Your task to perform on an android device: change timer sound Image 0: 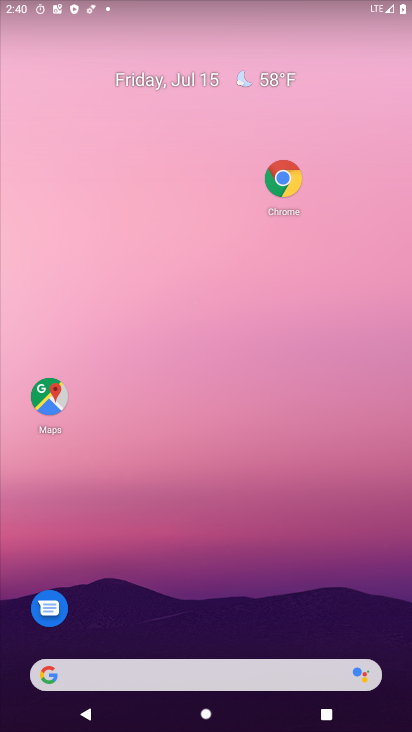
Step 0: drag from (213, 581) to (225, 17)
Your task to perform on an android device: change timer sound Image 1: 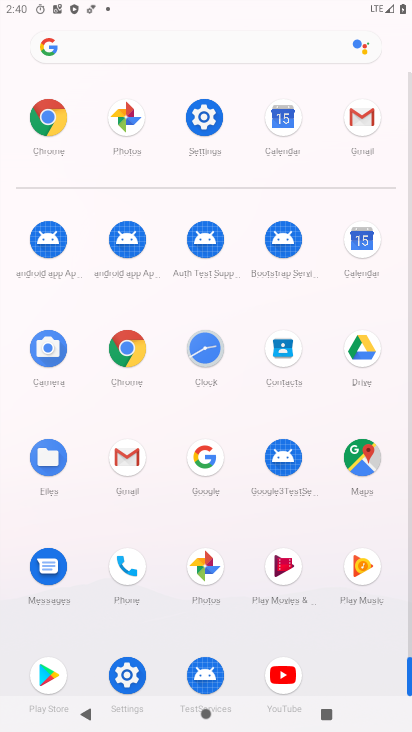
Step 1: click (121, 666)
Your task to perform on an android device: change timer sound Image 2: 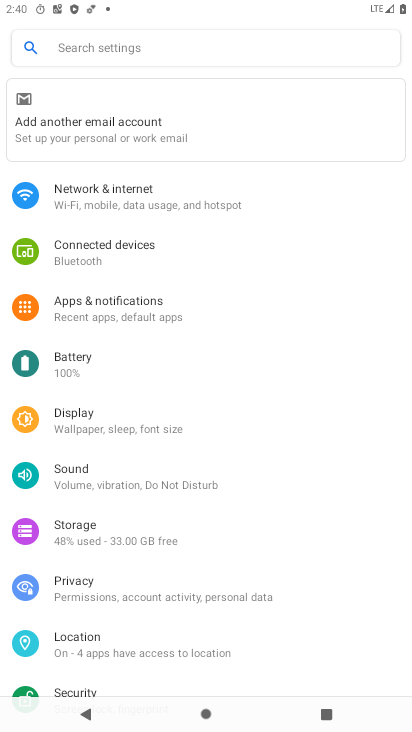
Step 2: drag from (113, 608) to (119, 429)
Your task to perform on an android device: change timer sound Image 3: 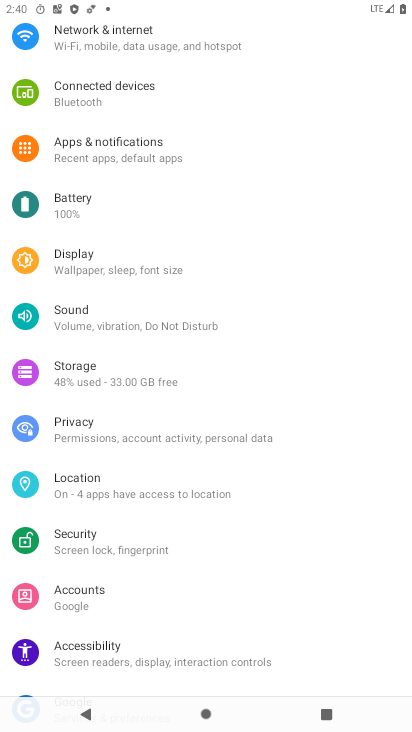
Step 3: press home button
Your task to perform on an android device: change timer sound Image 4: 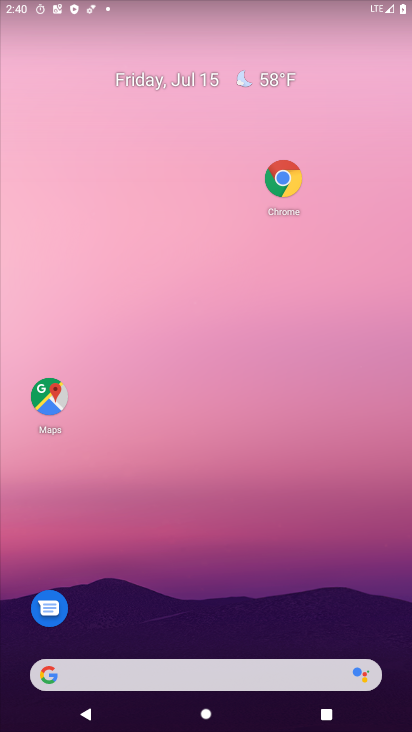
Step 4: drag from (214, 552) to (219, 55)
Your task to perform on an android device: change timer sound Image 5: 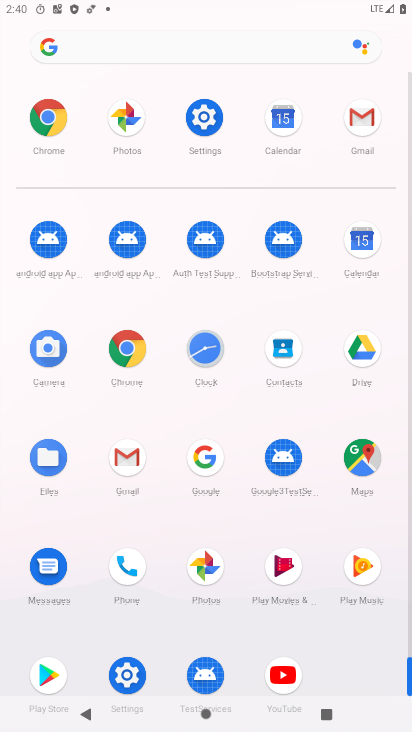
Step 5: click (208, 359)
Your task to perform on an android device: change timer sound Image 6: 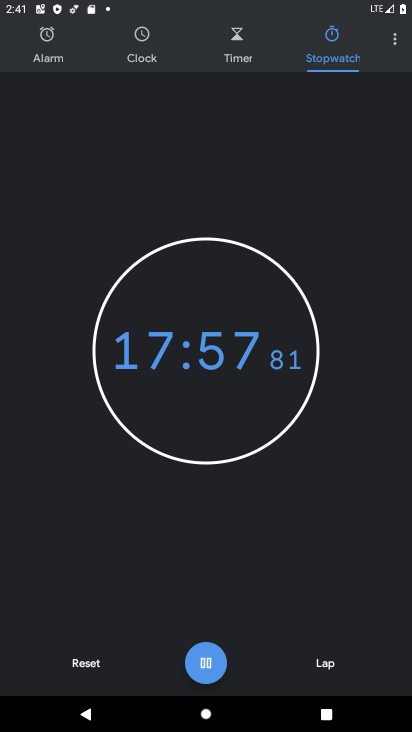
Step 6: click (396, 27)
Your task to perform on an android device: change timer sound Image 7: 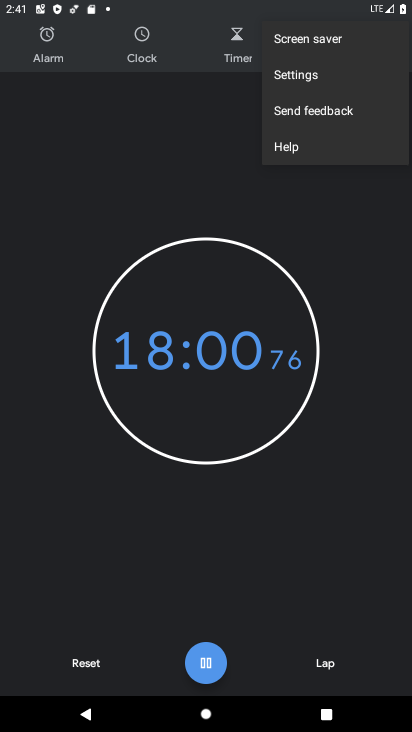
Step 7: click (317, 83)
Your task to perform on an android device: change timer sound Image 8: 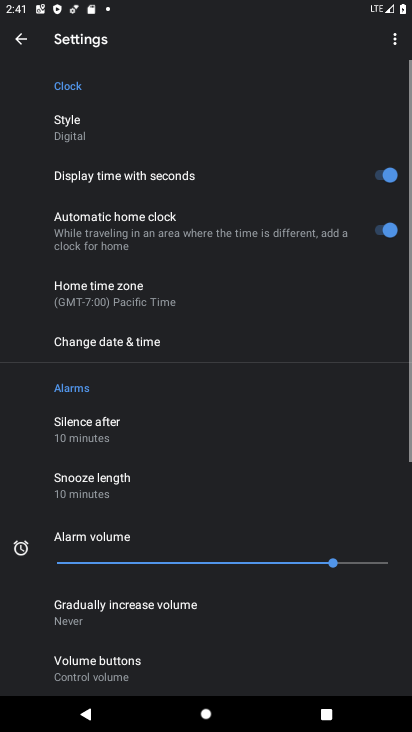
Step 8: drag from (226, 512) to (224, 170)
Your task to perform on an android device: change timer sound Image 9: 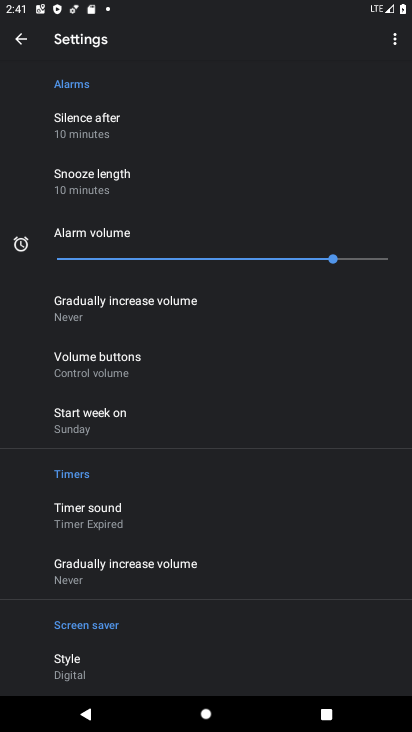
Step 9: click (78, 511)
Your task to perform on an android device: change timer sound Image 10: 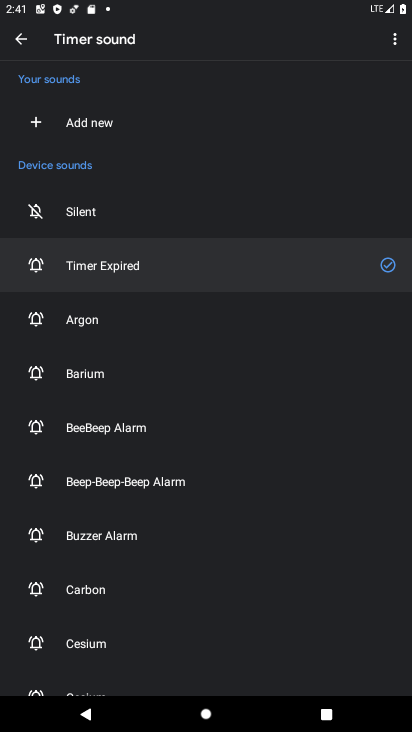
Step 10: task complete